Your task to perform on an android device: see sites visited before in the chrome app Image 0: 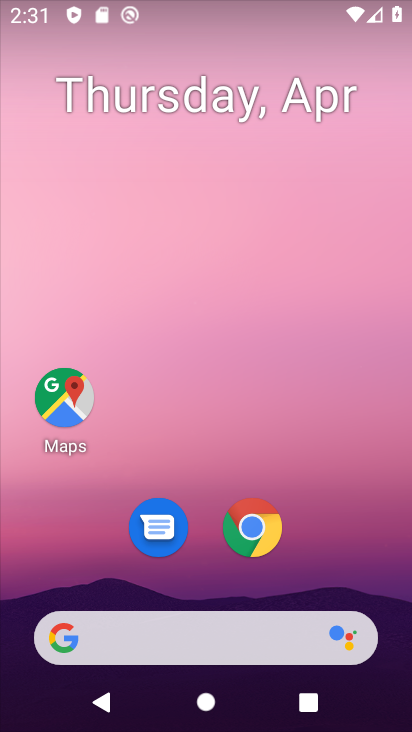
Step 0: click (258, 547)
Your task to perform on an android device: see sites visited before in the chrome app Image 1: 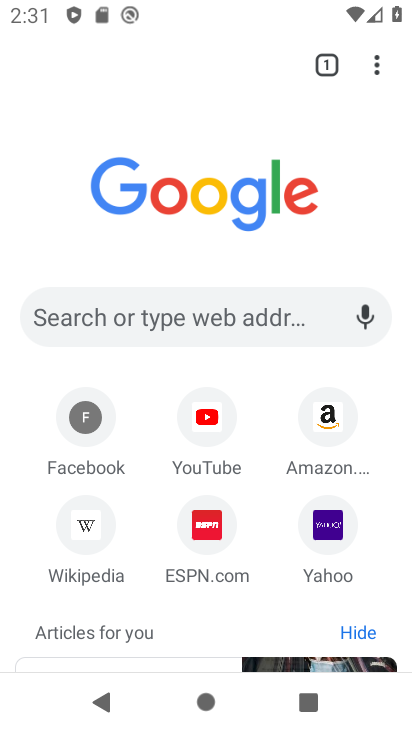
Step 1: click (379, 75)
Your task to perform on an android device: see sites visited before in the chrome app Image 2: 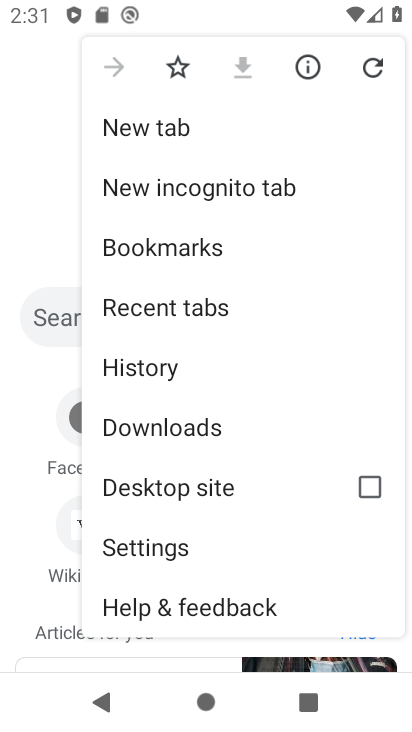
Step 2: click (111, 377)
Your task to perform on an android device: see sites visited before in the chrome app Image 3: 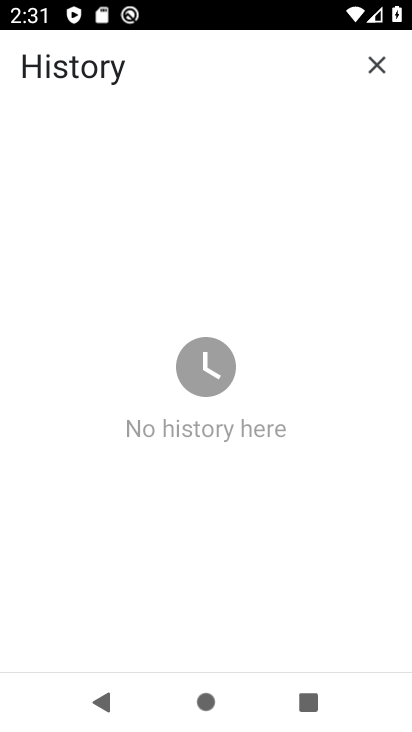
Step 3: task complete